Your task to perform on an android device: Open wifi settings Image 0: 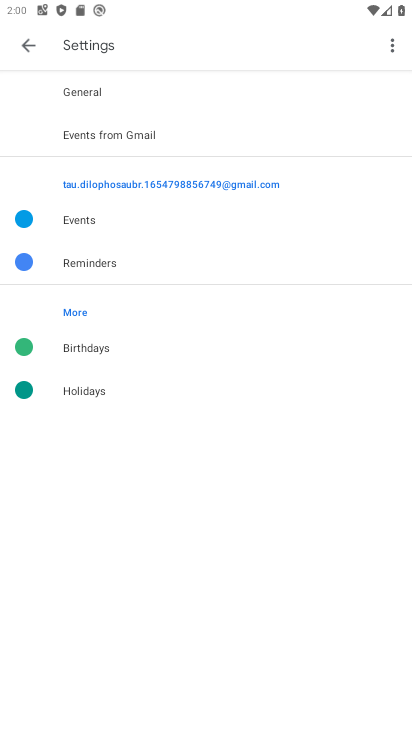
Step 0: press home button
Your task to perform on an android device: Open wifi settings Image 1: 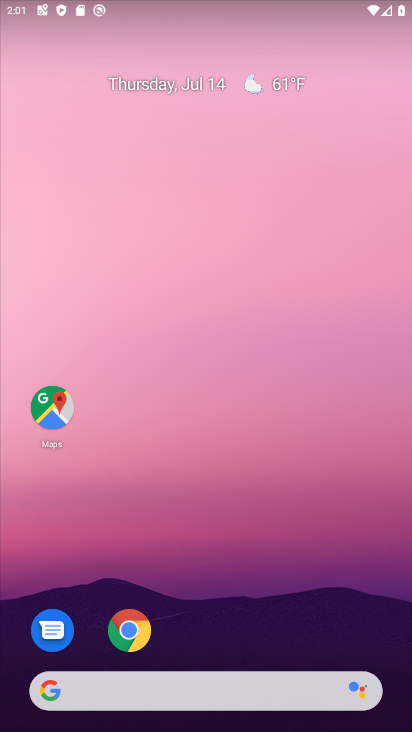
Step 1: drag from (243, 491) to (386, 117)
Your task to perform on an android device: Open wifi settings Image 2: 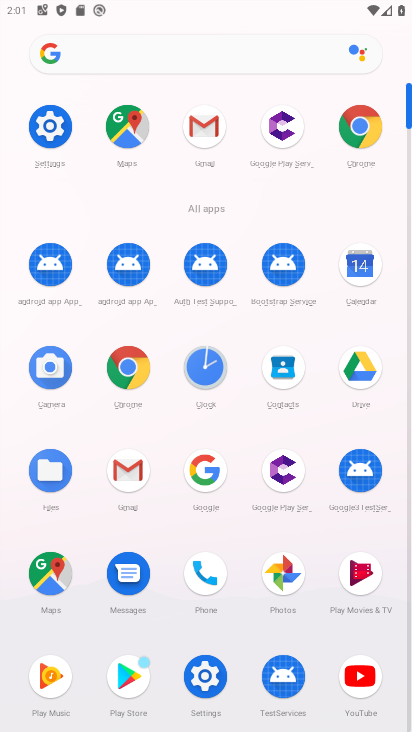
Step 2: click (60, 128)
Your task to perform on an android device: Open wifi settings Image 3: 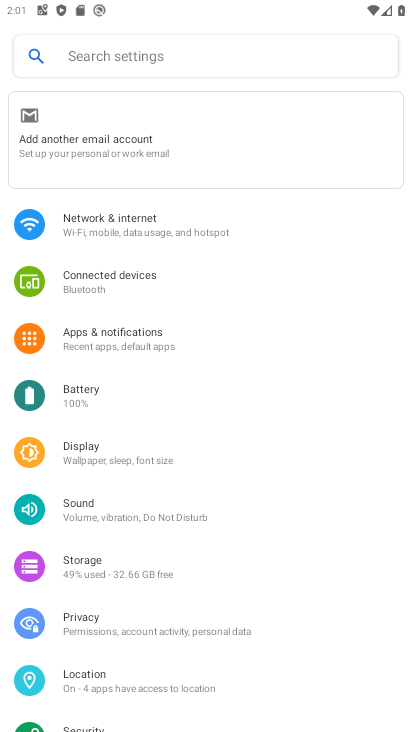
Step 3: click (124, 224)
Your task to perform on an android device: Open wifi settings Image 4: 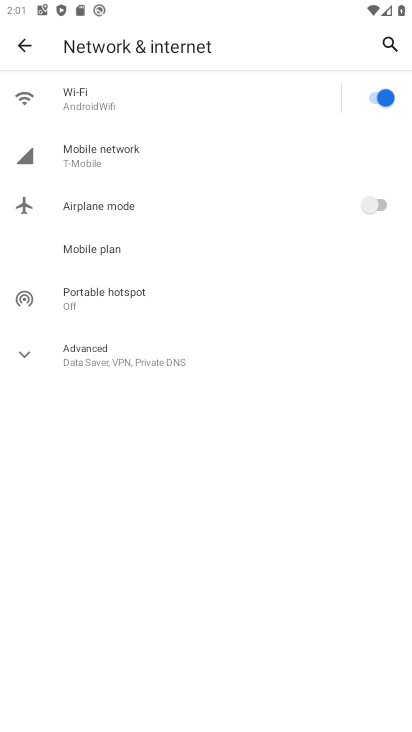
Step 4: click (114, 99)
Your task to perform on an android device: Open wifi settings Image 5: 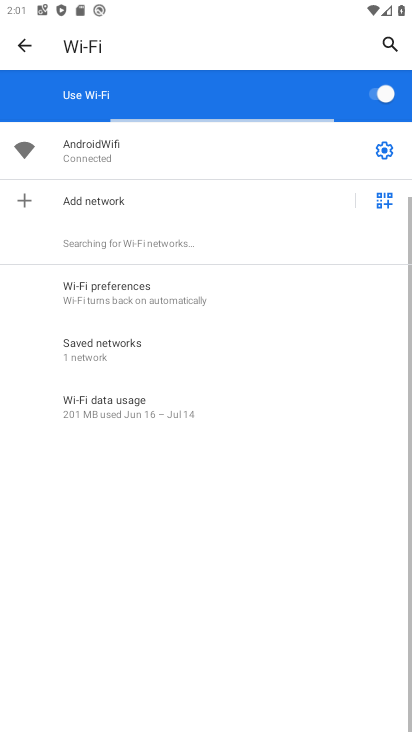
Step 5: task complete